Your task to perform on an android device: turn off location Image 0: 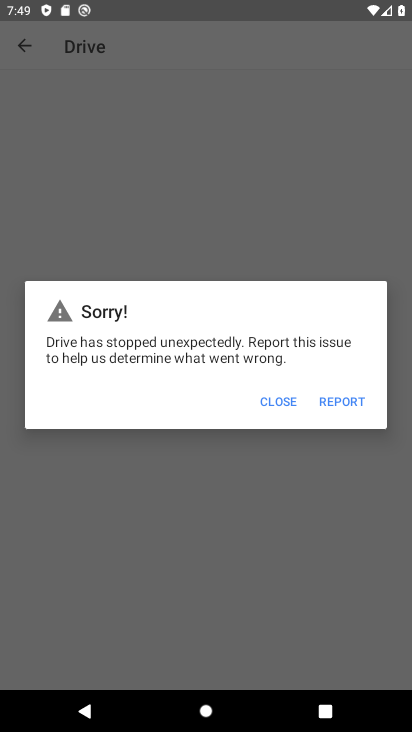
Step 0: press home button
Your task to perform on an android device: turn off location Image 1: 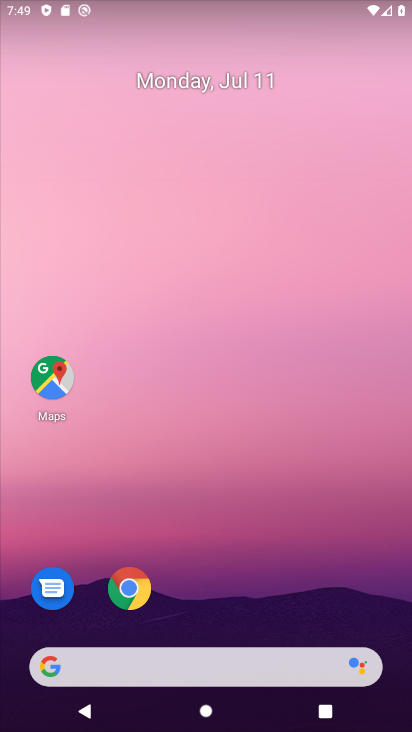
Step 1: drag from (265, 608) to (250, 6)
Your task to perform on an android device: turn off location Image 2: 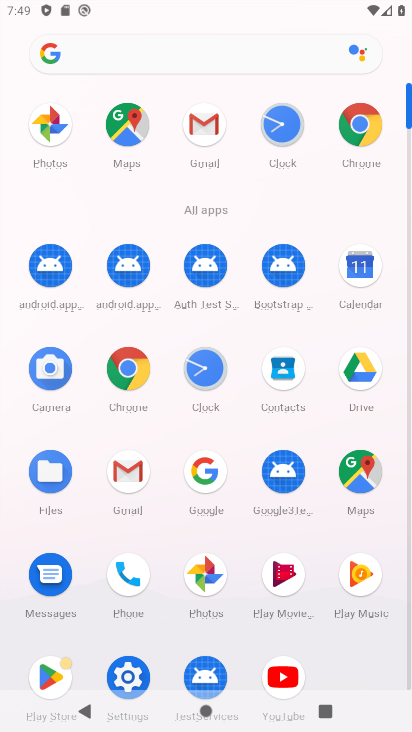
Step 2: click (128, 680)
Your task to perform on an android device: turn off location Image 3: 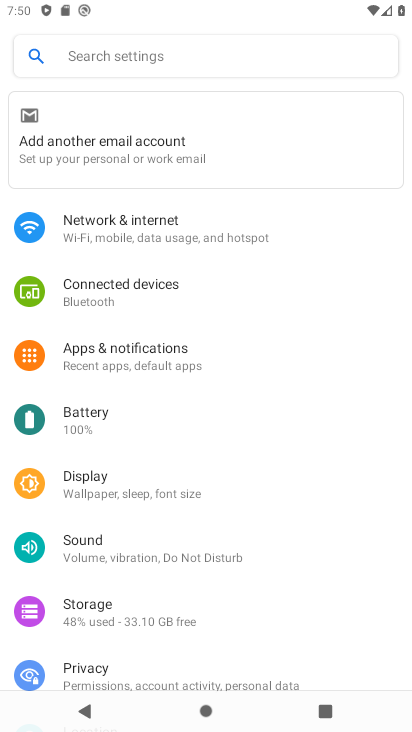
Step 3: drag from (249, 643) to (243, 257)
Your task to perform on an android device: turn off location Image 4: 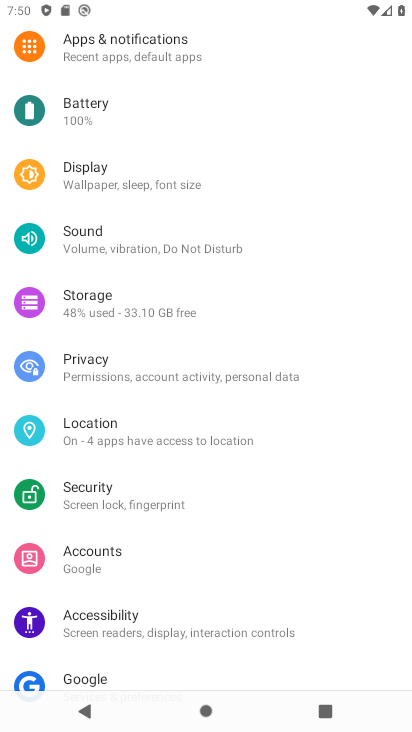
Step 4: click (152, 434)
Your task to perform on an android device: turn off location Image 5: 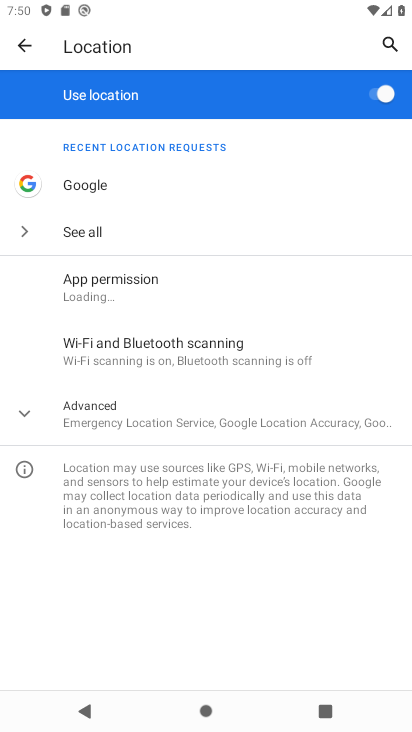
Step 5: click (388, 90)
Your task to perform on an android device: turn off location Image 6: 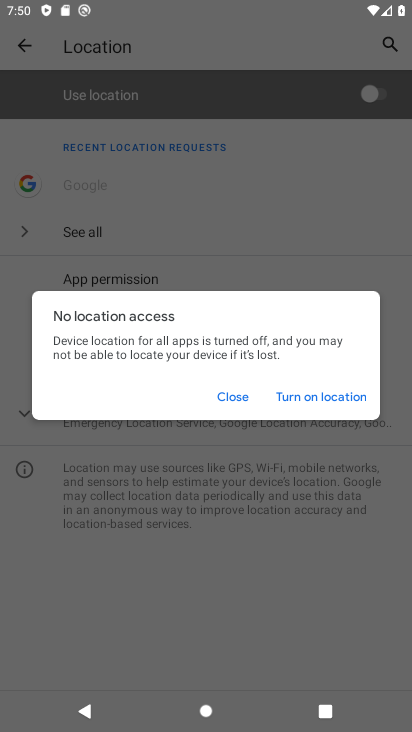
Step 6: click (228, 386)
Your task to perform on an android device: turn off location Image 7: 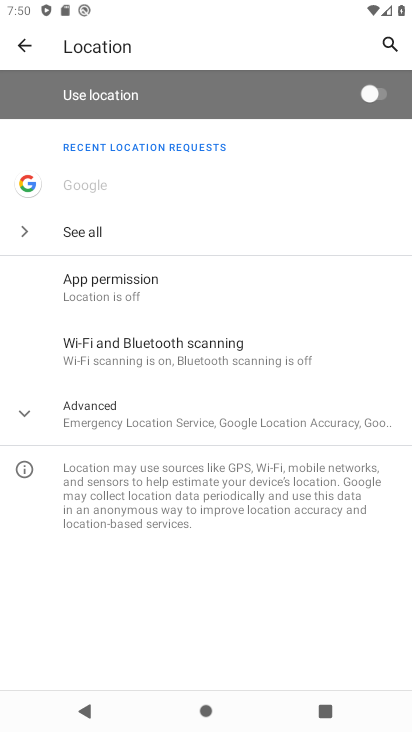
Step 7: click (223, 391)
Your task to perform on an android device: turn off location Image 8: 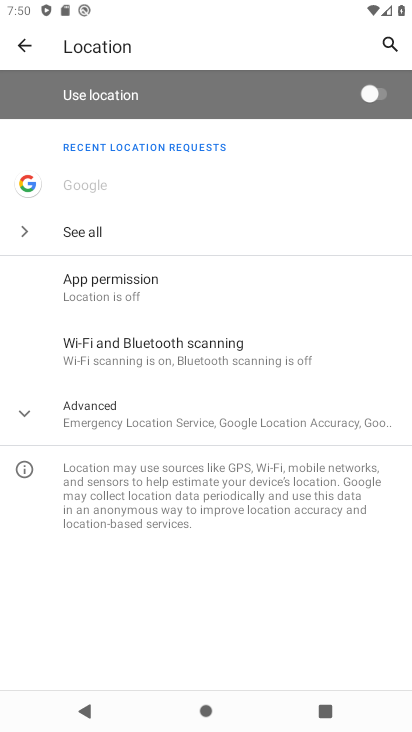
Step 8: task complete